Your task to perform on an android device: check storage Image 0: 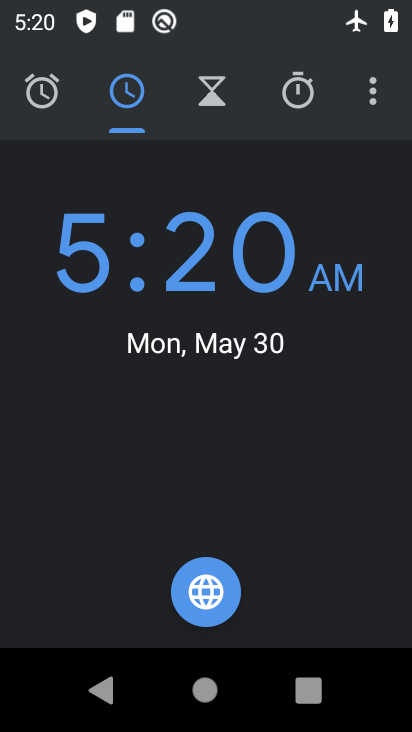
Step 0: press home button
Your task to perform on an android device: check storage Image 1: 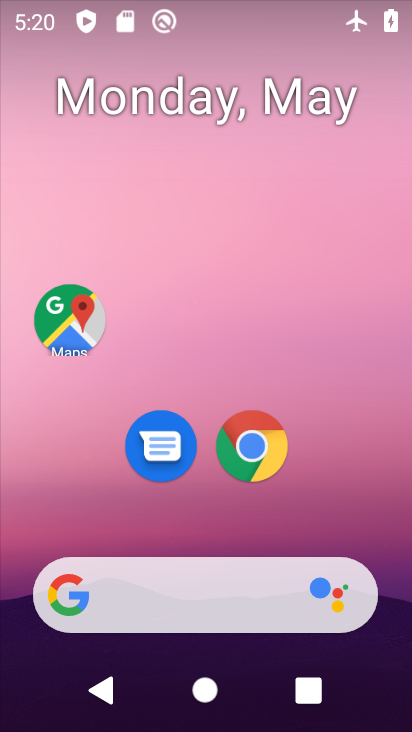
Step 1: drag from (349, 488) to (222, 64)
Your task to perform on an android device: check storage Image 2: 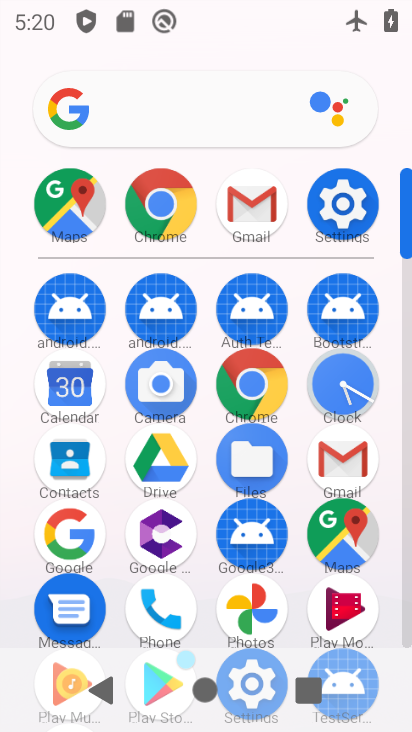
Step 2: click (339, 210)
Your task to perform on an android device: check storage Image 3: 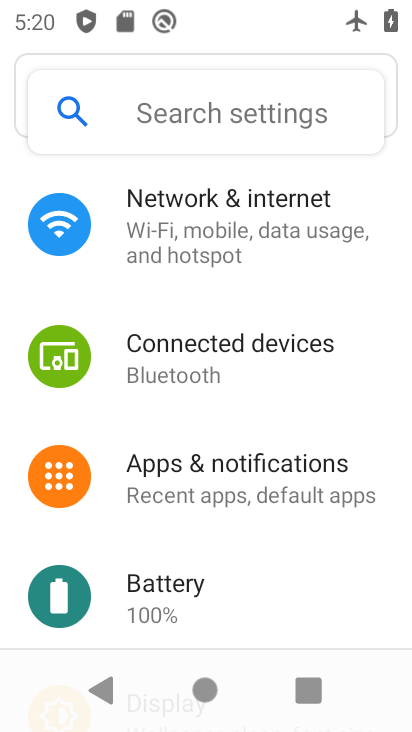
Step 3: drag from (252, 543) to (204, 161)
Your task to perform on an android device: check storage Image 4: 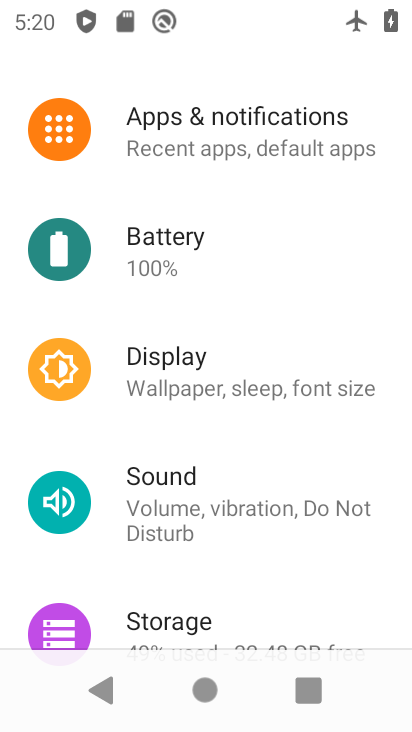
Step 4: click (174, 608)
Your task to perform on an android device: check storage Image 5: 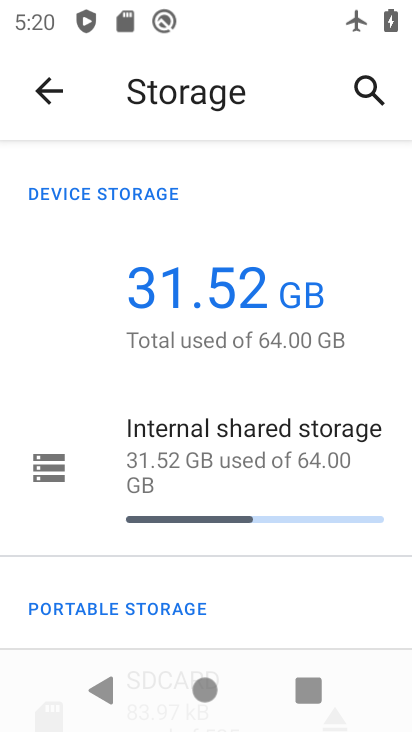
Step 5: task complete